Your task to perform on an android device: Open Maps and search for coffee Image 0: 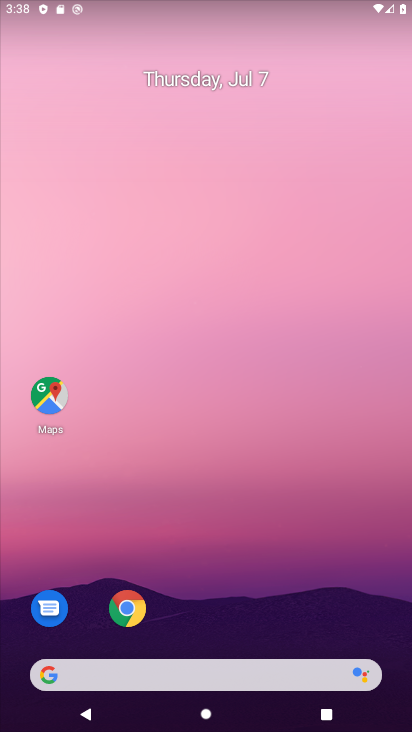
Step 0: drag from (253, 613) to (196, 78)
Your task to perform on an android device: Open Maps and search for coffee Image 1: 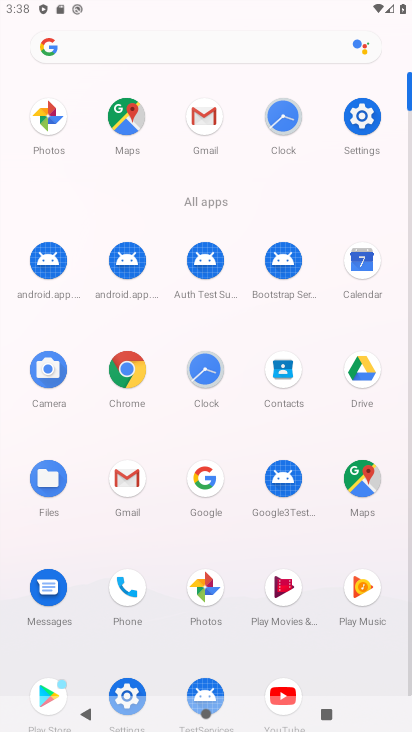
Step 1: click (125, 111)
Your task to perform on an android device: Open Maps and search for coffee Image 2: 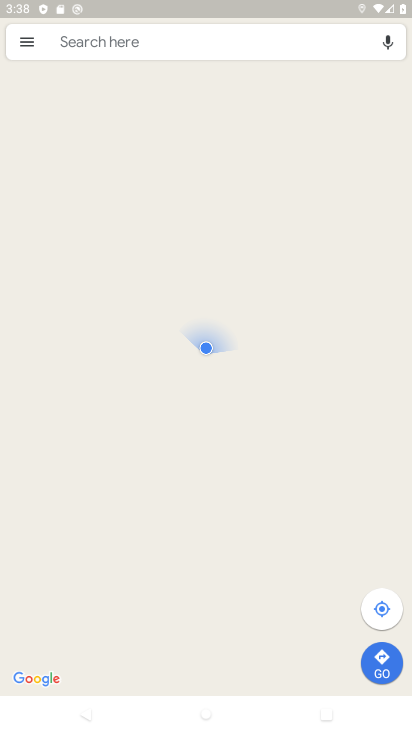
Step 2: click (193, 45)
Your task to perform on an android device: Open Maps and search for coffee Image 3: 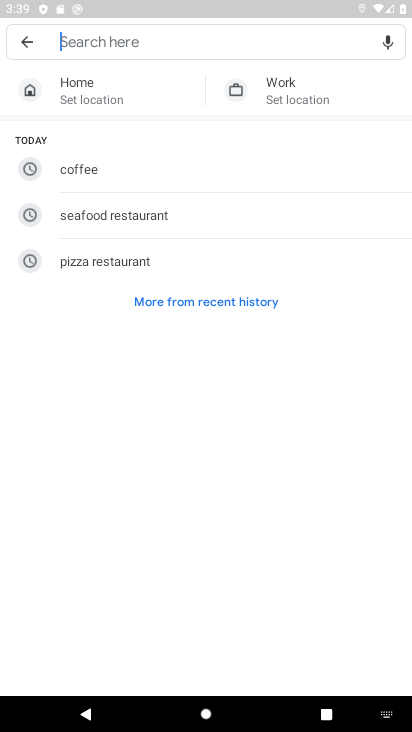
Step 3: click (187, 172)
Your task to perform on an android device: Open Maps and search for coffee Image 4: 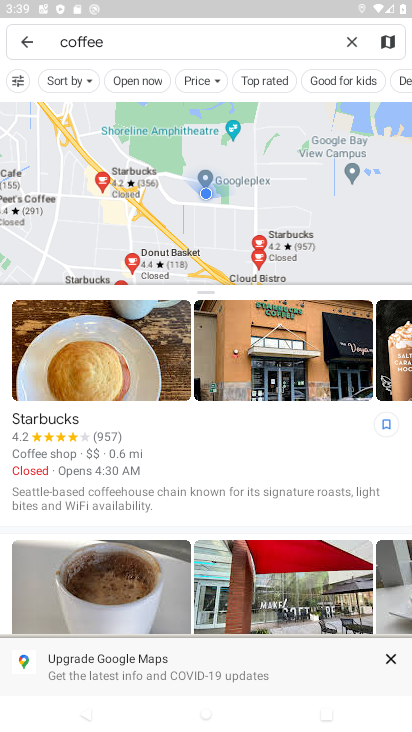
Step 4: task complete